Your task to perform on an android device: Go to ESPN.com Image 0: 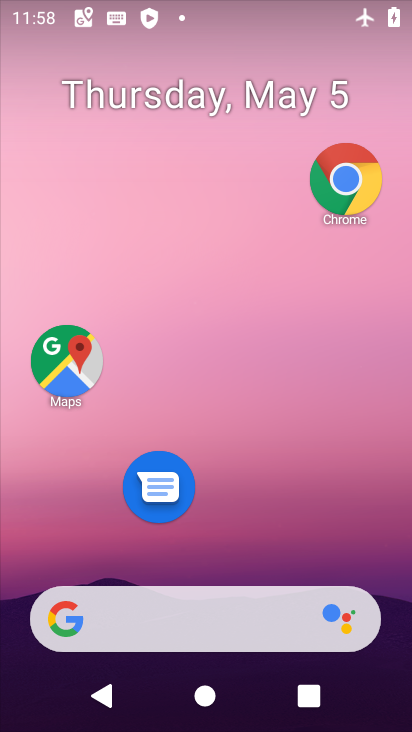
Step 0: click (341, 176)
Your task to perform on an android device: Go to ESPN.com Image 1: 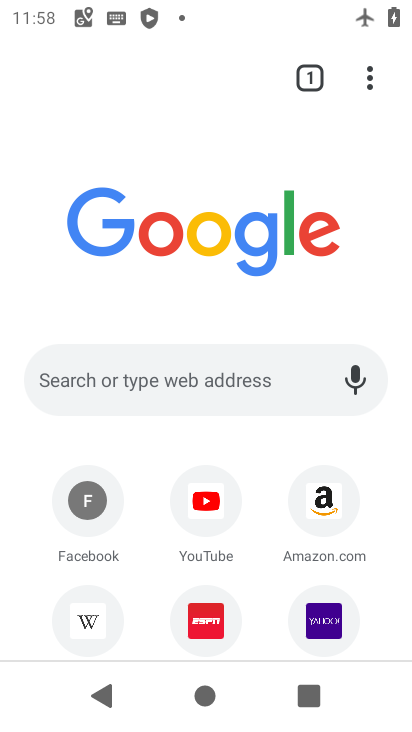
Step 1: click (207, 629)
Your task to perform on an android device: Go to ESPN.com Image 2: 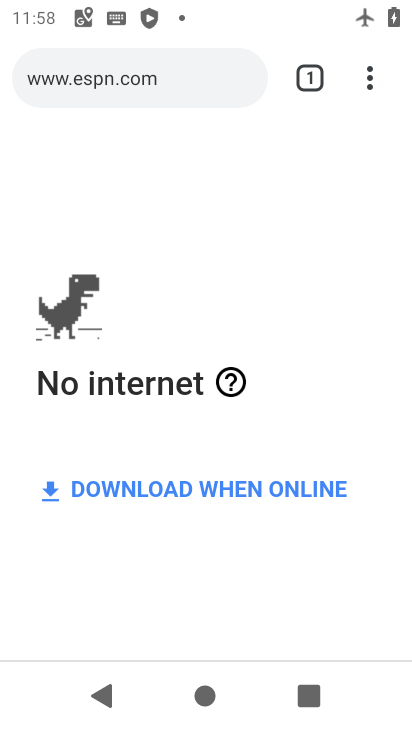
Step 2: task complete